Your task to perform on an android device: Open the stopwatch Image 0: 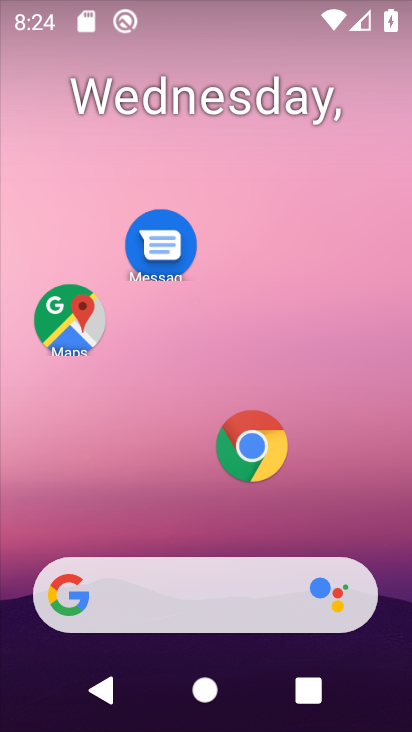
Step 0: press home button
Your task to perform on an android device: Open the stopwatch Image 1: 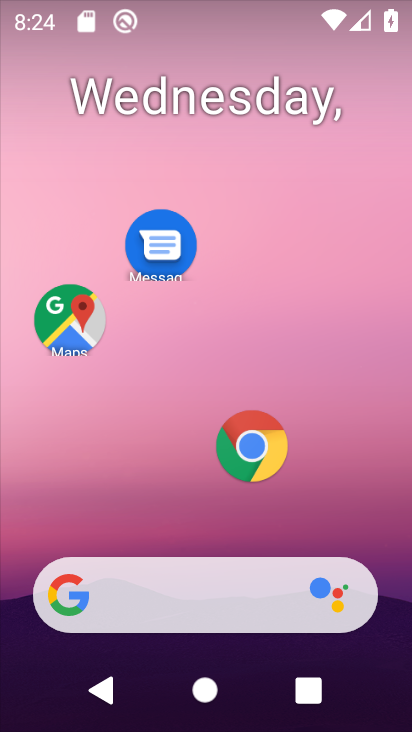
Step 1: drag from (198, 526) to (194, 57)
Your task to perform on an android device: Open the stopwatch Image 2: 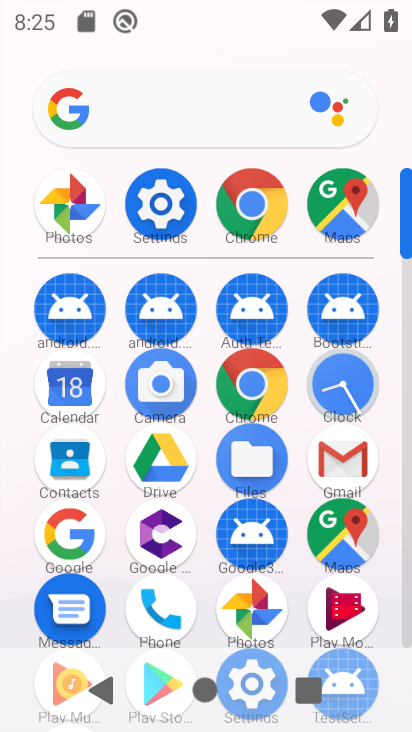
Step 2: click (342, 377)
Your task to perform on an android device: Open the stopwatch Image 3: 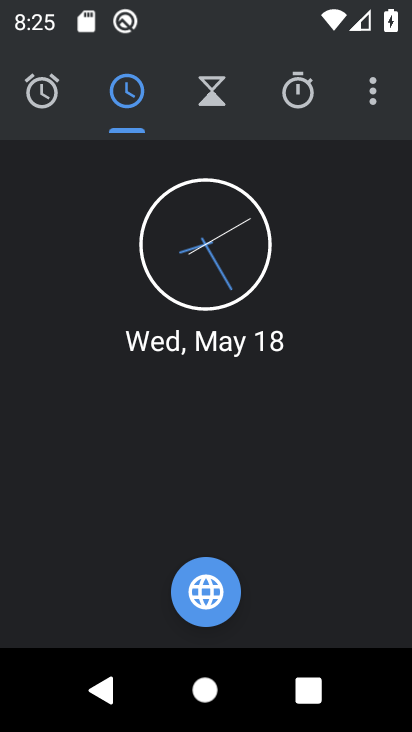
Step 3: click (292, 88)
Your task to perform on an android device: Open the stopwatch Image 4: 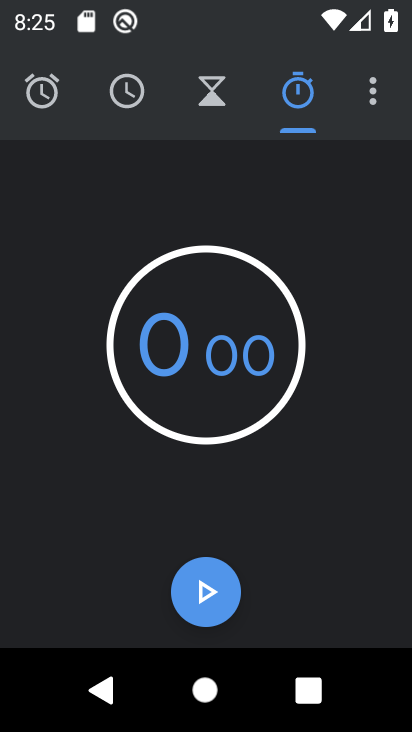
Step 4: click (202, 584)
Your task to perform on an android device: Open the stopwatch Image 5: 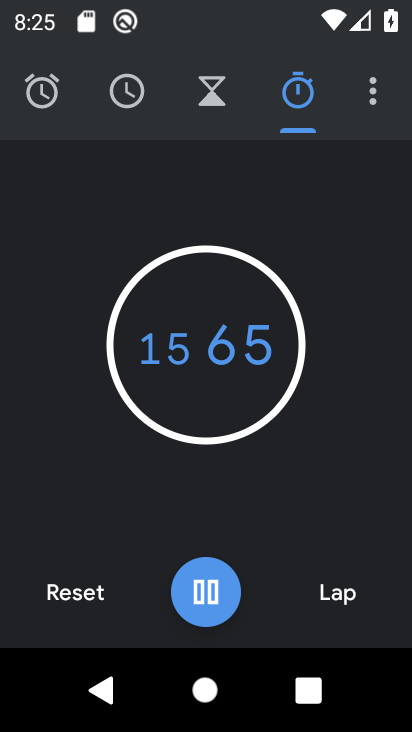
Step 5: task complete